Your task to perform on an android device: Turn off the flashlight Image 0: 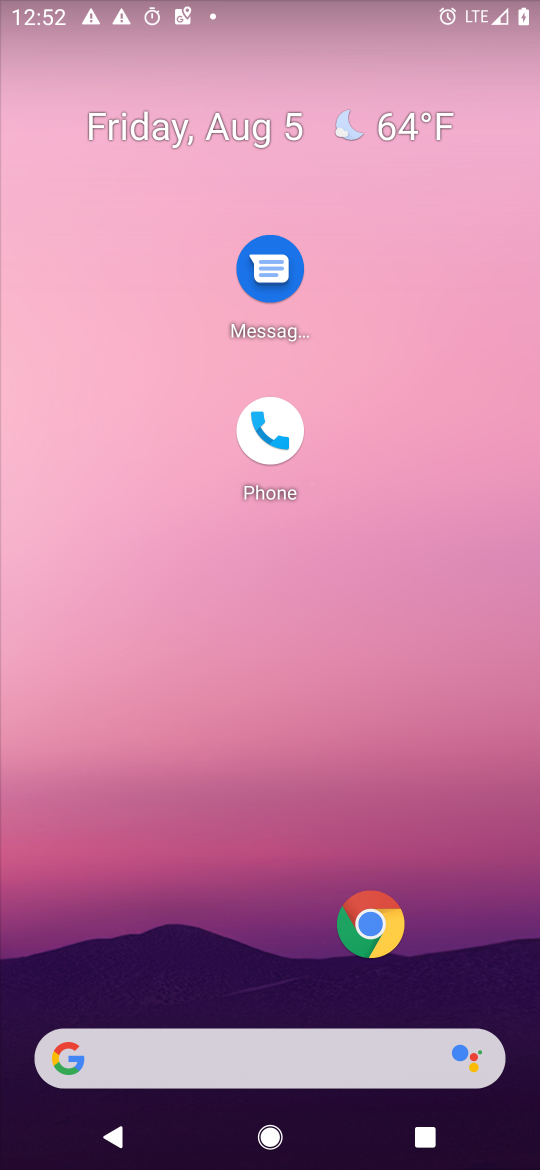
Step 0: click (351, 316)
Your task to perform on an android device: Turn off the flashlight Image 1: 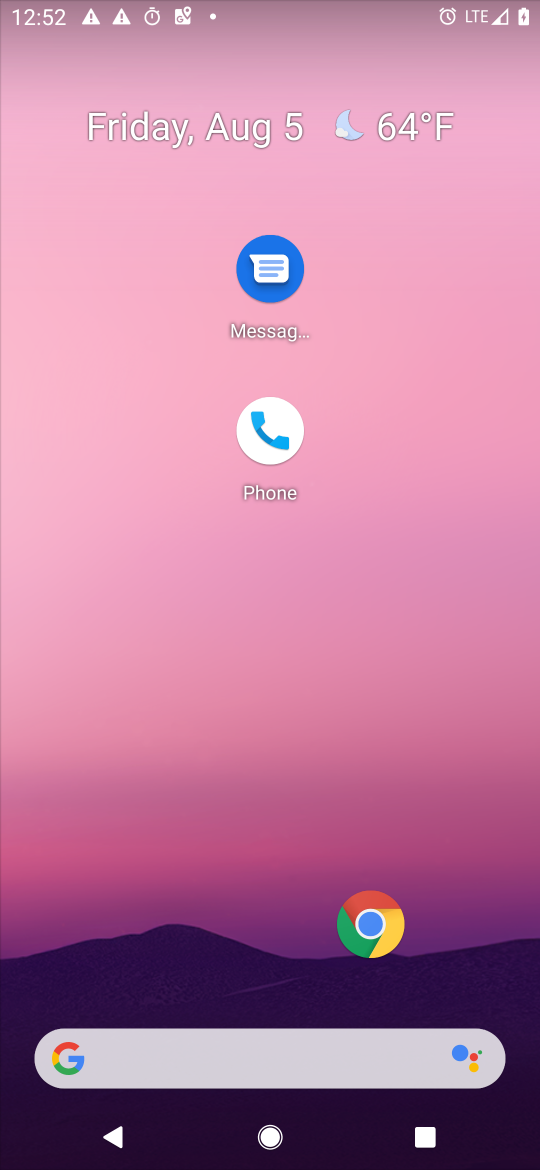
Step 1: press home button
Your task to perform on an android device: Turn off the flashlight Image 2: 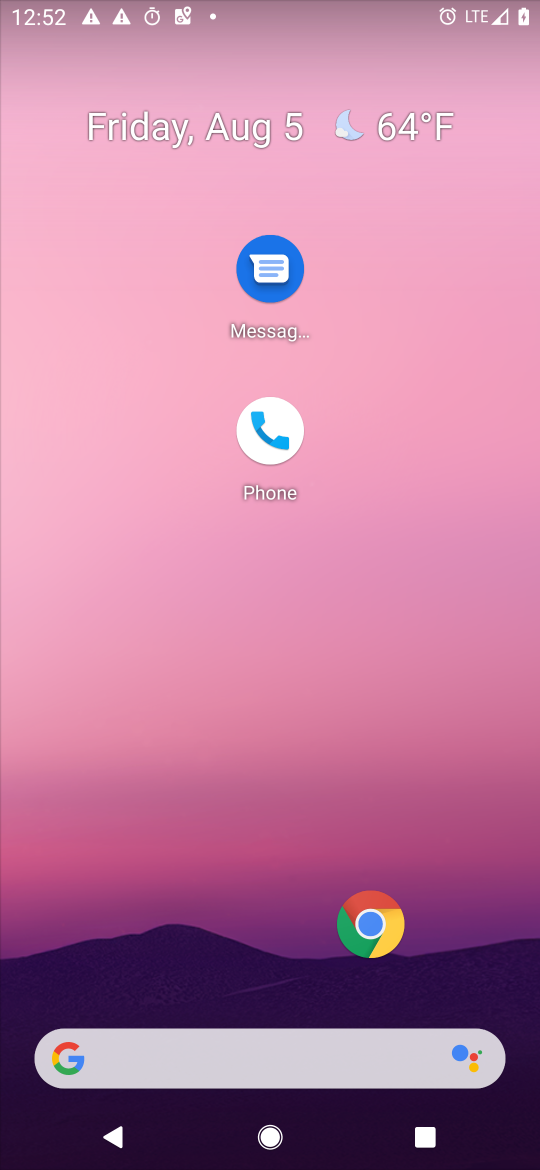
Step 2: drag from (289, 867) to (4, 605)
Your task to perform on an android device: Turn off the flashlight Image 3: 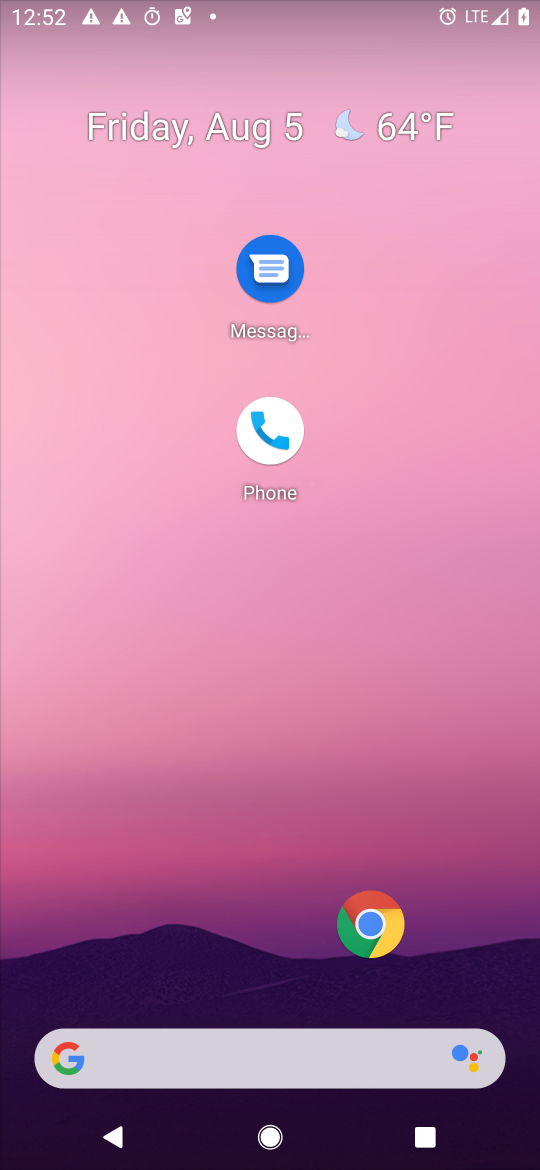
Step 3: drag from (230, 907) to (261, 51)
Your task to perform on an android device: Turn off the flashlight Image 4: 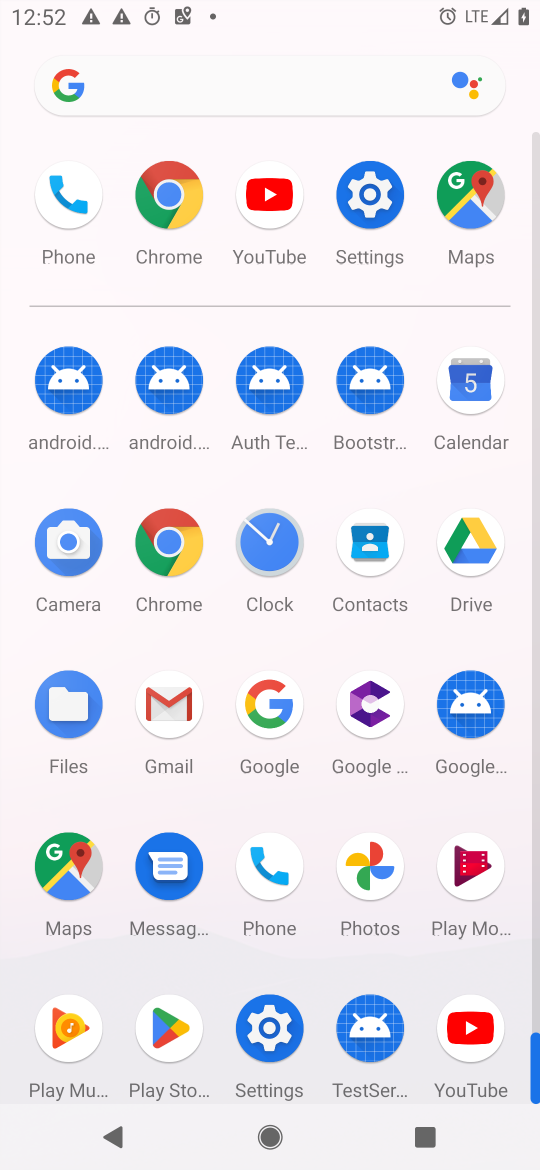
Step 4: click (362, 180)
Your task to perform on an android device: Turn off the flashlight Image 5: 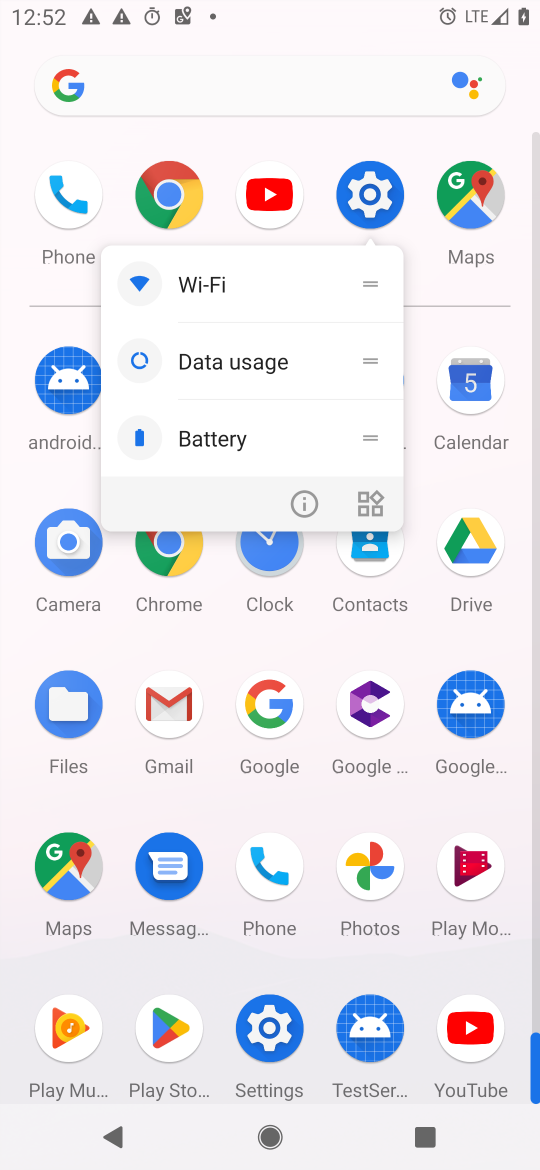
Step 5: click (296, 487)
Your task to perform on an android device: Turn off the flashlight Image 6: 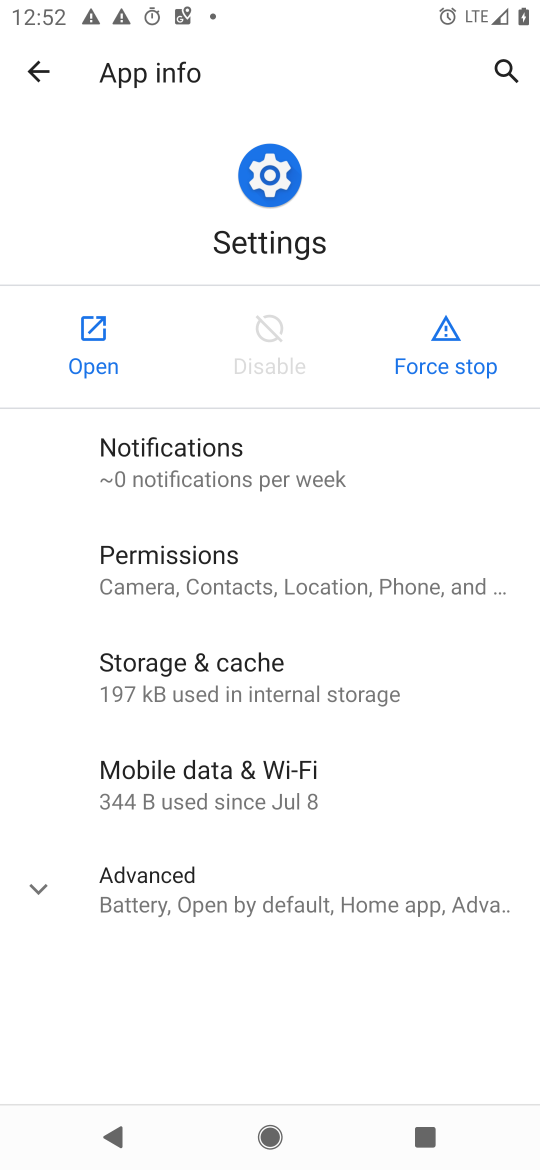
Step 6: click (106, 338)
Your task to perform on an android device: Turn off the flashlight Image 7: 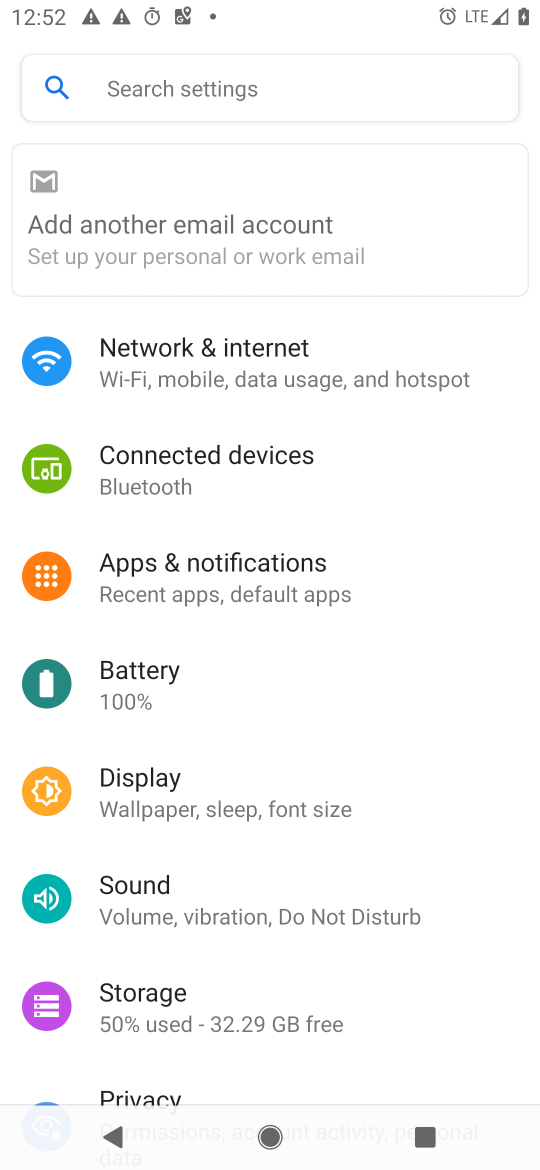
Step 7: click (296, 98)
Your task to perform on an android device: Turn off the flashlight Image 8: 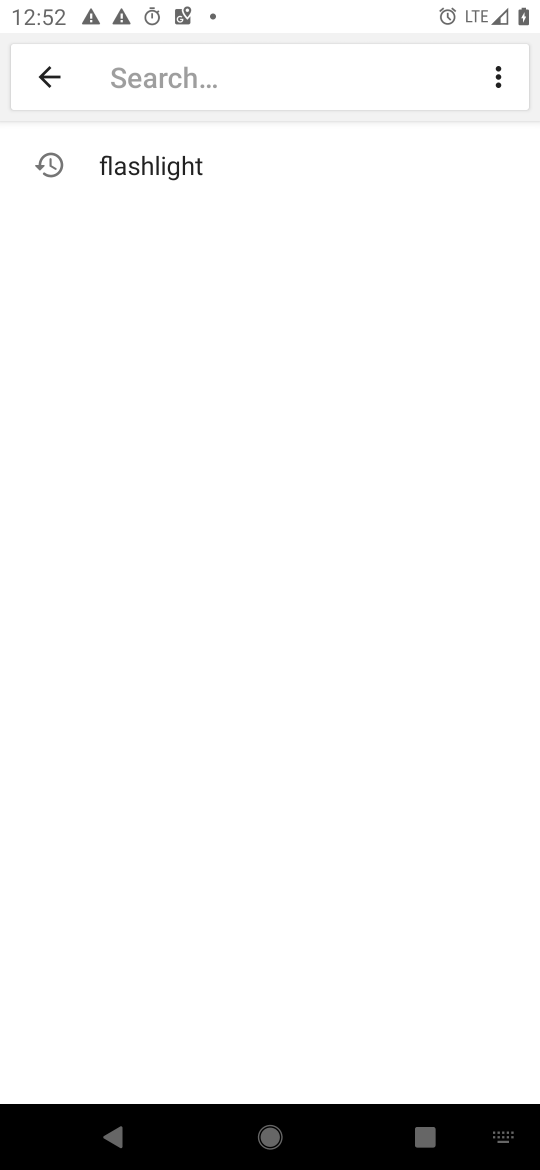
Step 8: click (156, 139)
Your task to perform on an android device: Turn off the flashlight Image 9: 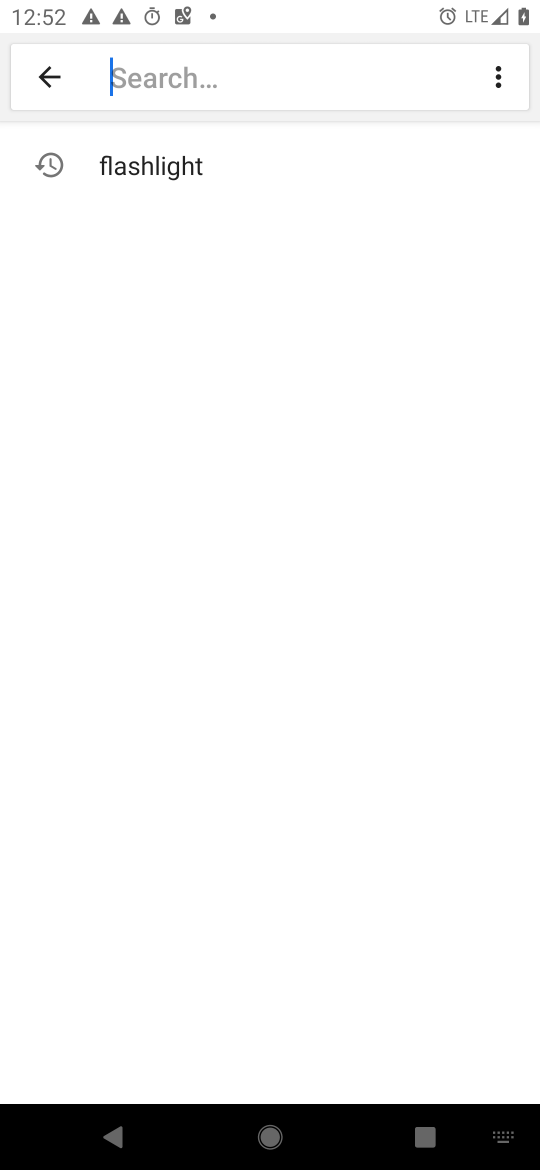
Step 9: click (198, 157)
Your task to perform on an android device: Turn off the flashlight Image 10: 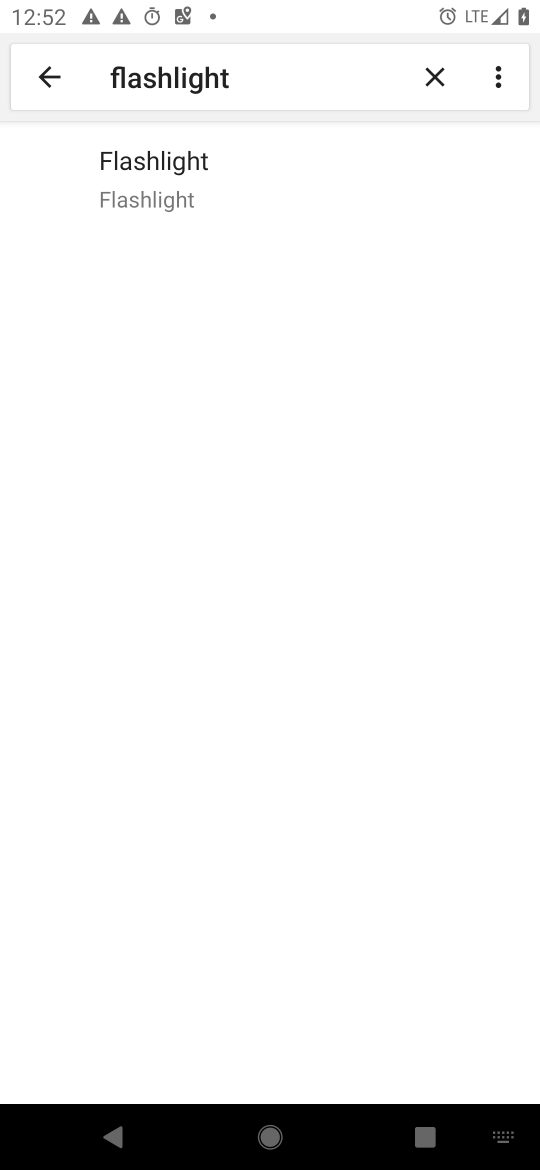
Step 10: task complete